Your task to perform on an android device: change the clock display to digital Image 0: 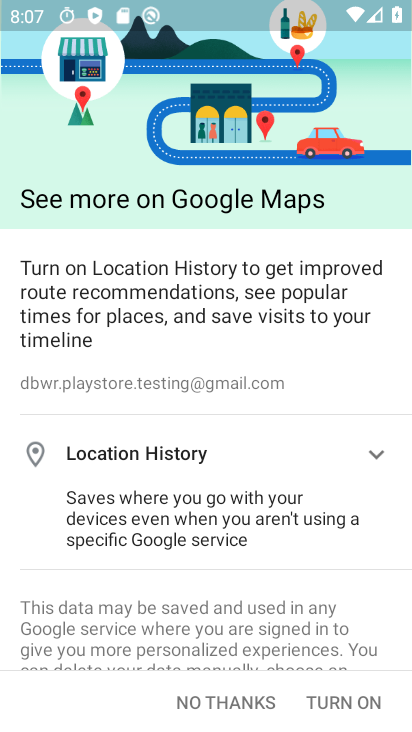
Step 0: press home button
Your task to perform on an android device: change the clock display to digital Image 1: 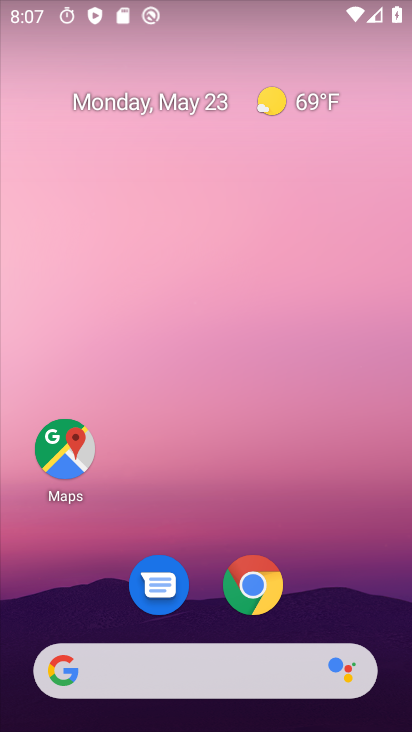
Step 1: drag from (203, 460) to (222, 62)
Your task to perform on an android device: change the clock display to digital Image 2: 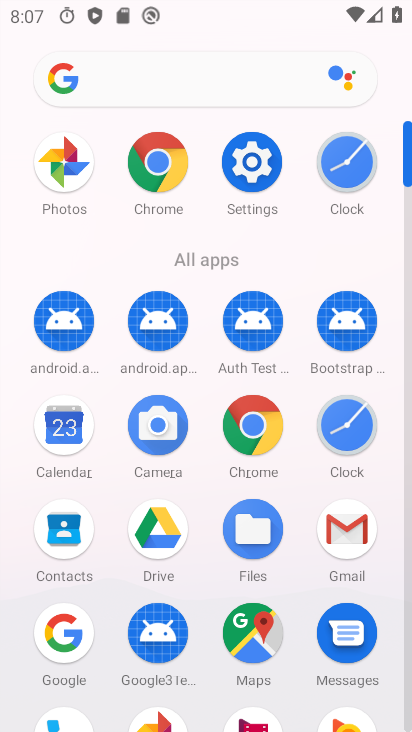
Step 2: click (327, 166)
Your task to perform on an android device: change the clock display to digital Image 3: 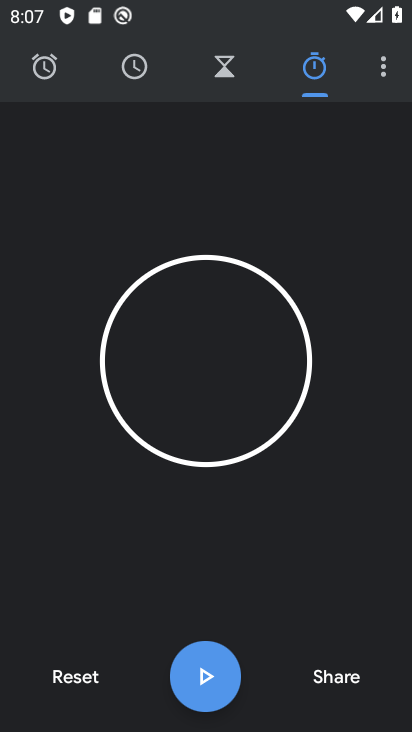
Step 3: click (127, 57)
Your task to perform on an android device: change the clock display to digital Image 4: 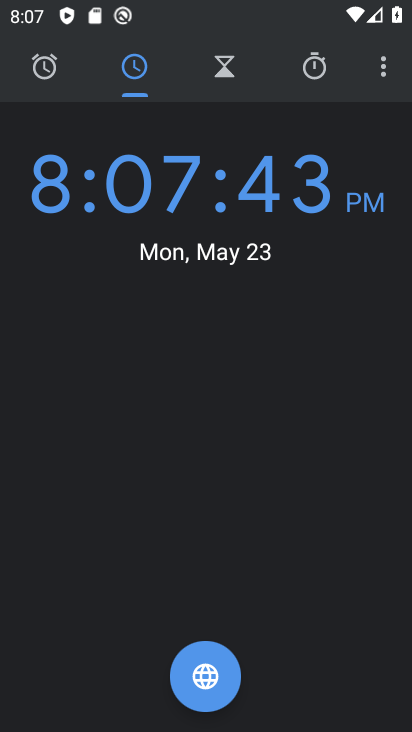
Step 4: task complete